Your task to perform on an android device: turn on improve location accuracy Image 0: 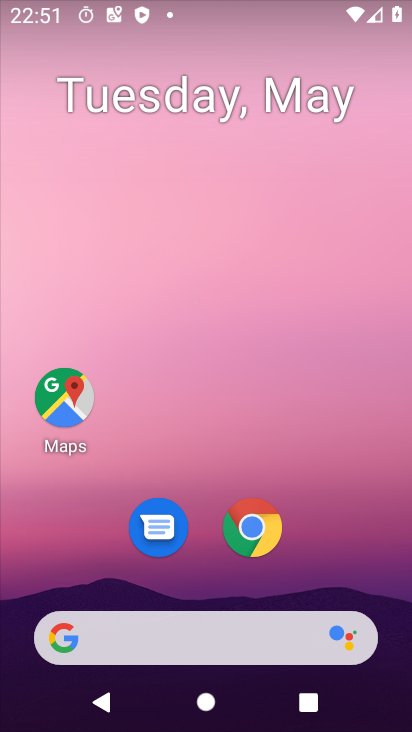
Step 0: drag from (212, 247) to (216, 64)
Your task to perform on an android device: turn on improve location accuracy Image 1: 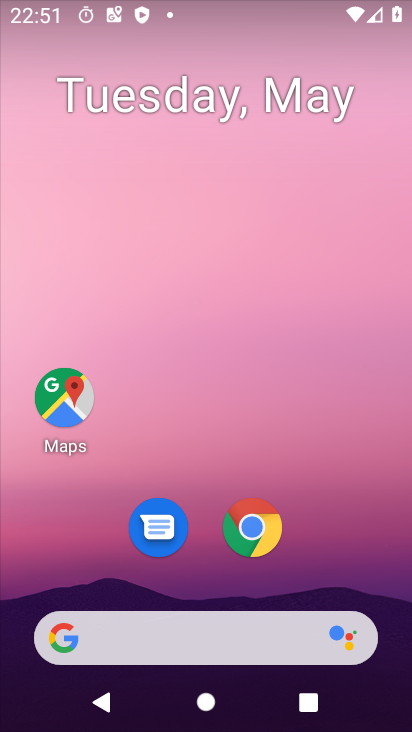
Step 1: drag from (200, 574) to (307, 6)
Your task to perform on an android device: turn on improve location accuracy Image 2: 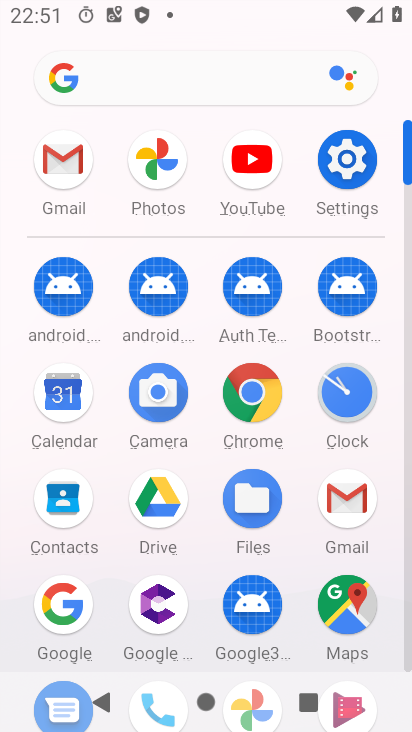
Step 2: click (350, 169)
Your task to perform on an android device: turn on improve location accuracy Image 3: 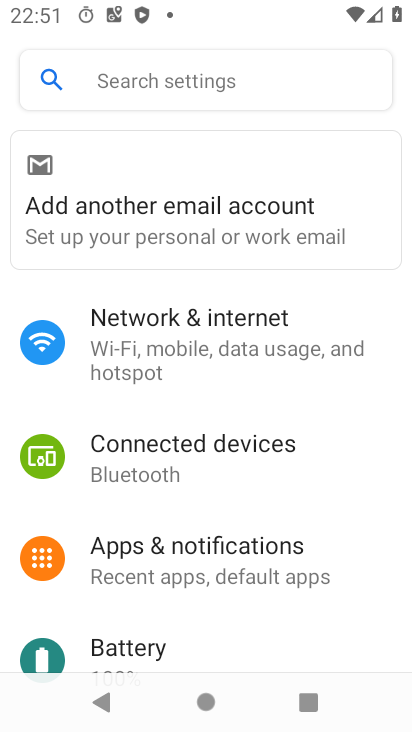
Step 3: drag from (182, 565) to (237, 123)
Your task to perform on an android device: turn on improve location accuracy Image 4: 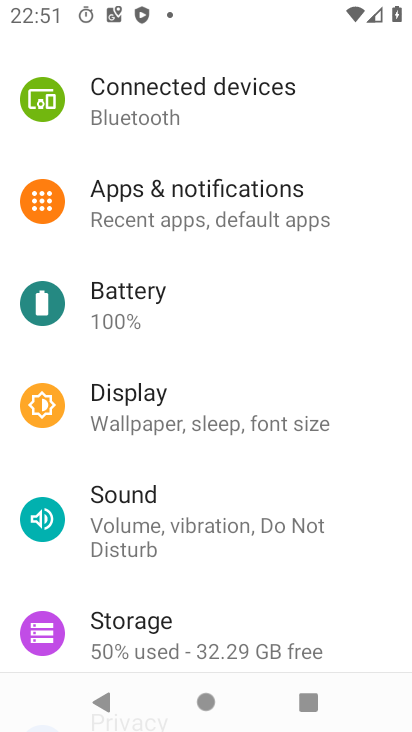
Step 4: drag from (165, 556) to (245, 99)
Your task to perform on an android device: turn on improve location accuracy Image 5: 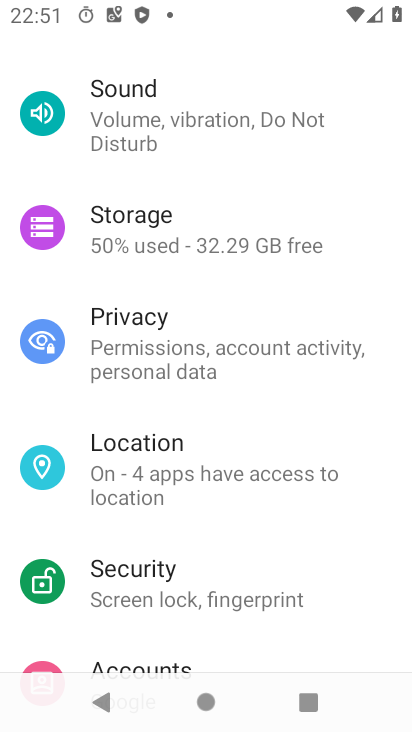
Step 5: click (159, 481)
Your task to perform on an android device: turn on improve location accuracy Image 6: 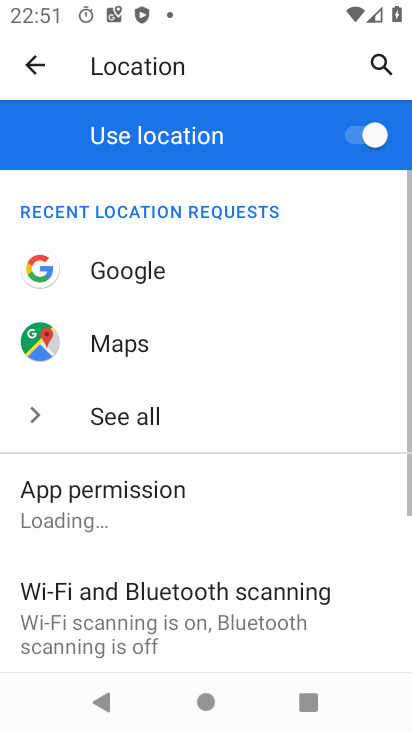
Step 6: drag from (188, 515) to (252, 144)
Your task to perform on an android device: turn on improve location accuracy Image 7: 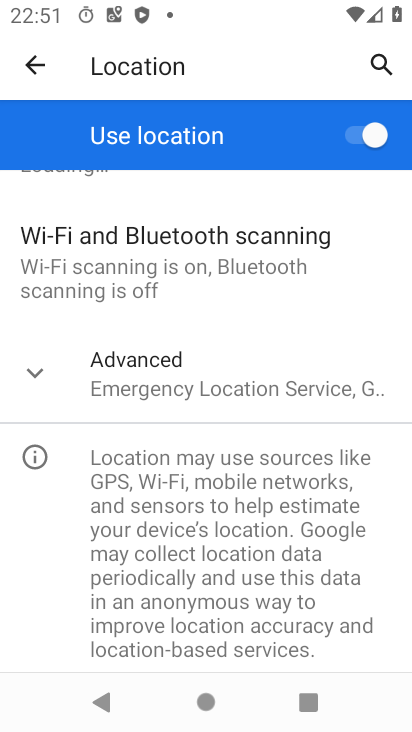
Step 7: click (128, 403)
Your task to perform on an android device: turn on improve location accuracy Image 8: 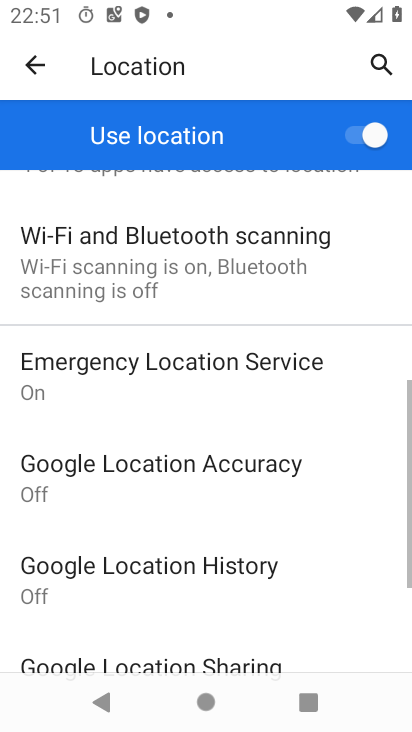
Step 8: drag from (220, 426) to (291, 178)
Your task to perform on an android device: turn on improve location accuracy Image 9: 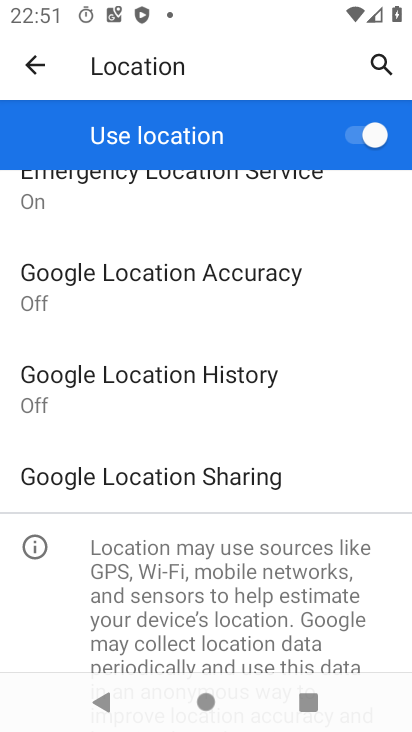
Step 9: click (173, 291)
Your task to perform on an android device: turn on improve location accuracy Image 10: 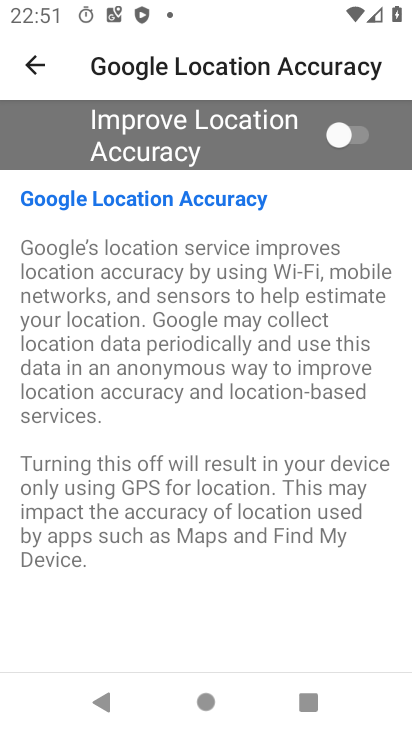
Step 10: click (329, 139)
Your task to perform on an android device: turn on improve location accuracy Image 11: 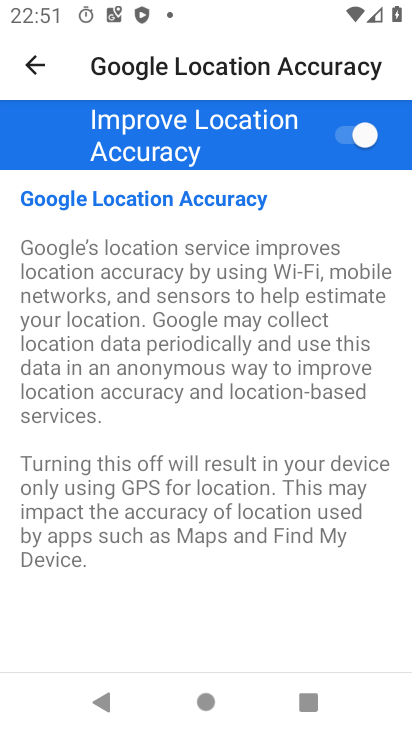
Step 11: task complete